Your task to perform on an android device: When is my next meeting? Image 0: 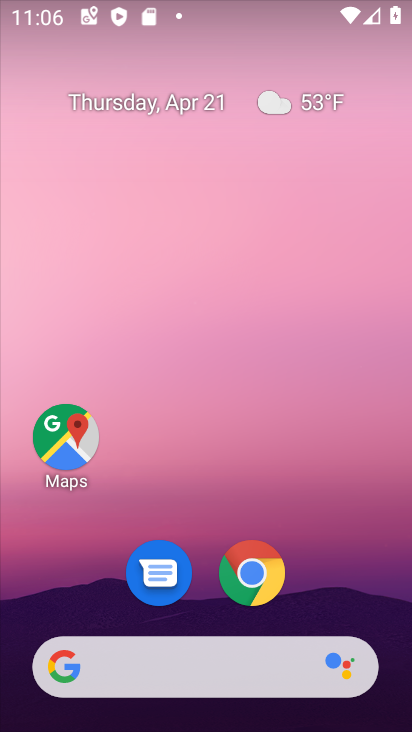
Step 0: drag from (318, 609) to (306, 107)
Your task to perform on an android device: When is my next meeting? Image 1: 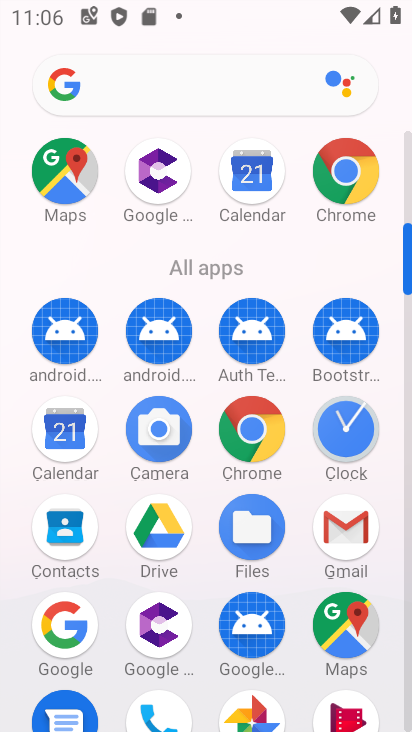
Step 1: click (64, 430)
Your task to perform on an android device: When is my next meeting? Image 2: 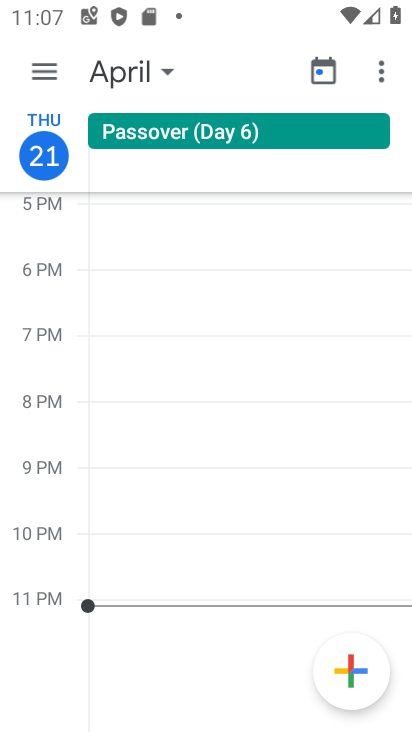
Step 2: click (39, 71)
Your task to perform on an android device: When is my next meeting? Image 3: 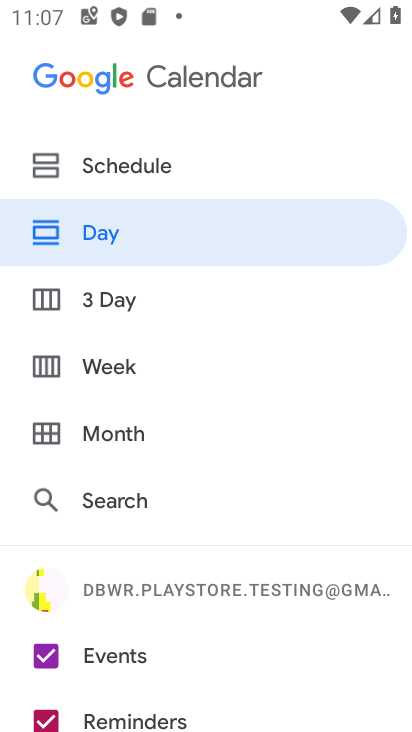
Step 3: click (115, 163)
Your task to perform on an android device: When is my next meeting? Image 4: 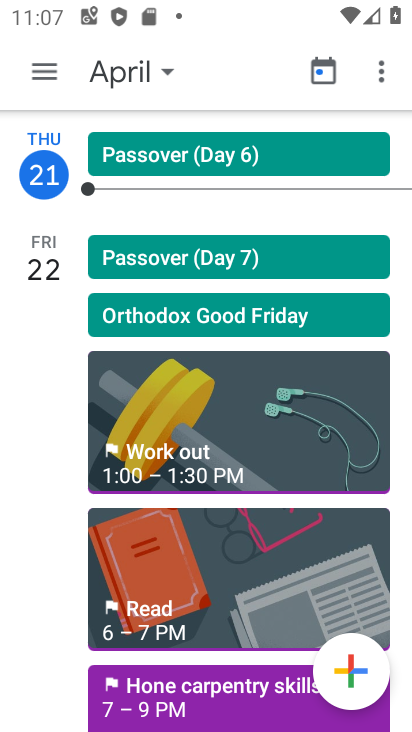
Step 4: task complete